Your task to perform on an android device: set an alarm Image 0: 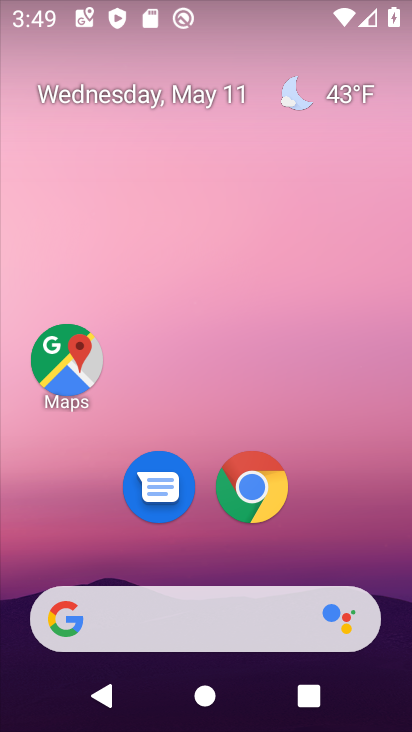
Step 0: drag from (322, 553) to (257, 174)
Your task to perform on an android device: set an alarm Image 1: 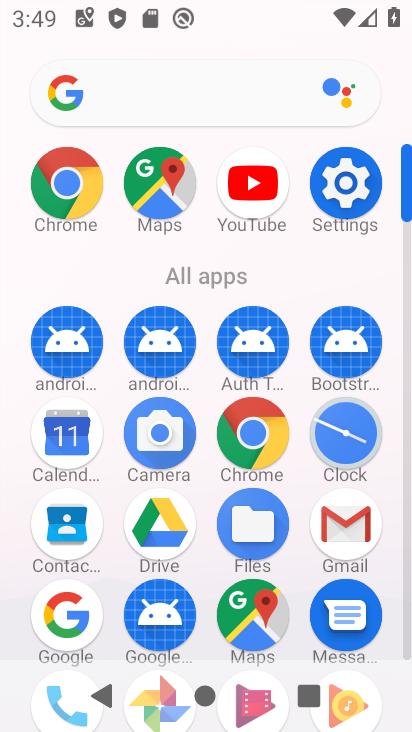
Step 1: click (335, 466)
Your task to perform on an android device: set an alarm Image 2: 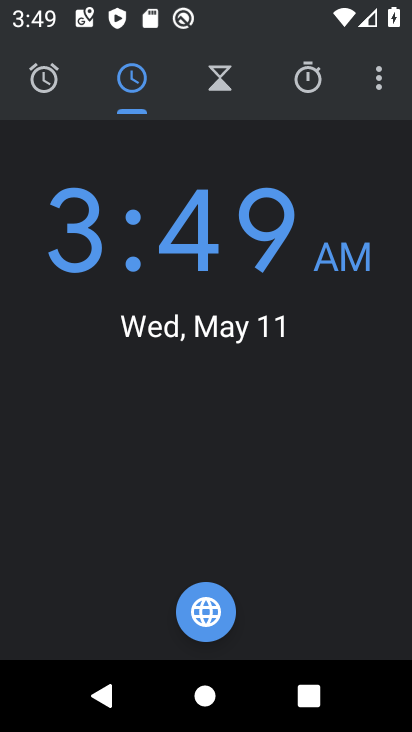
Step 2: click (54, 87)
Your task to perform on an android device: set an alarm Image 3: 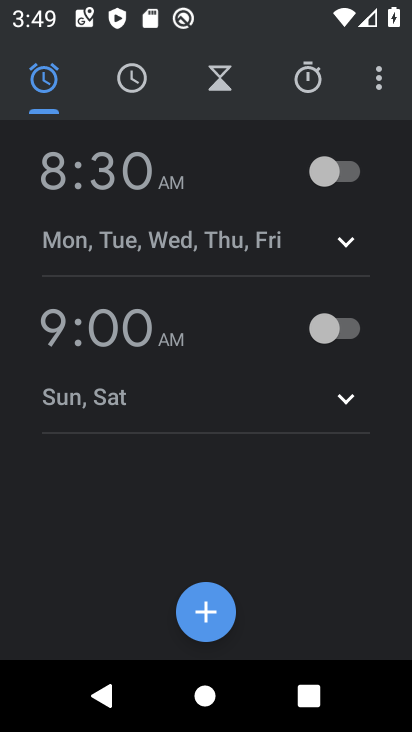
Step 3: click (354, 172)
Your task to perform on an android device: set an alarm Image 4: 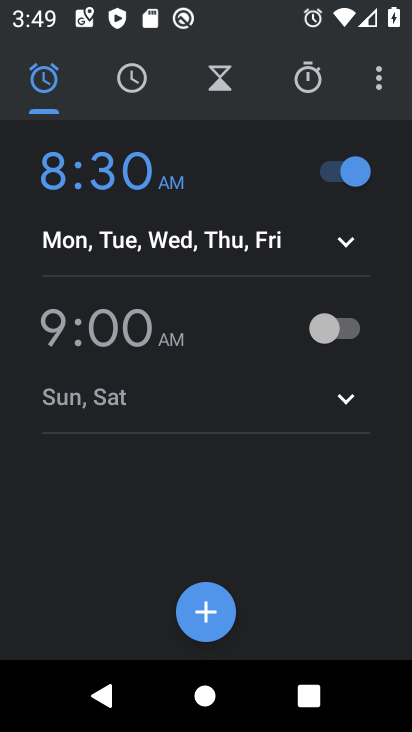
Step 4: task complete